Your task to perform on an android device: install app "Calculator" Image 0: 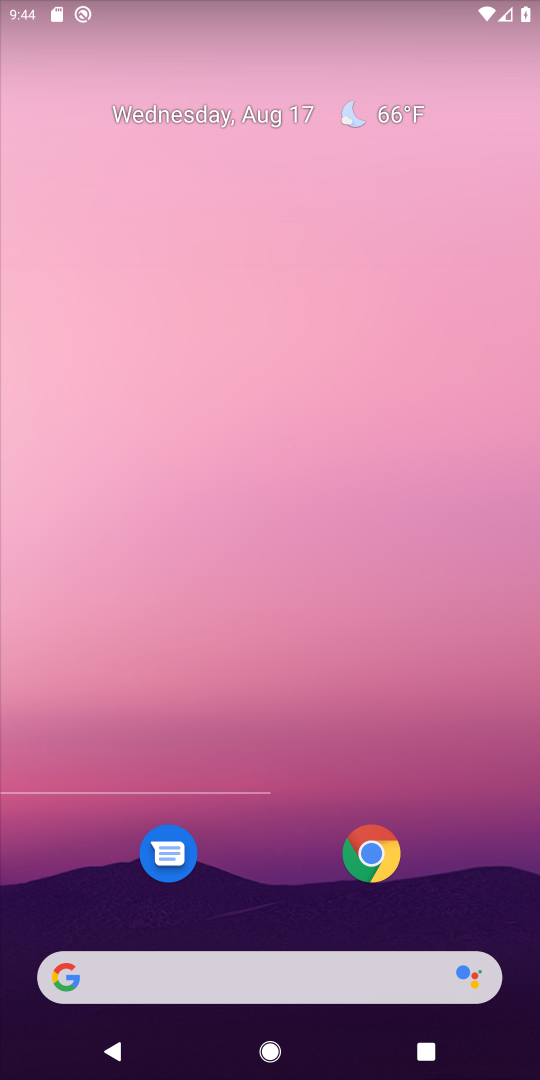
Step 0: press home button
Your task to perform on an android device: install app "Calculator" Image 1: 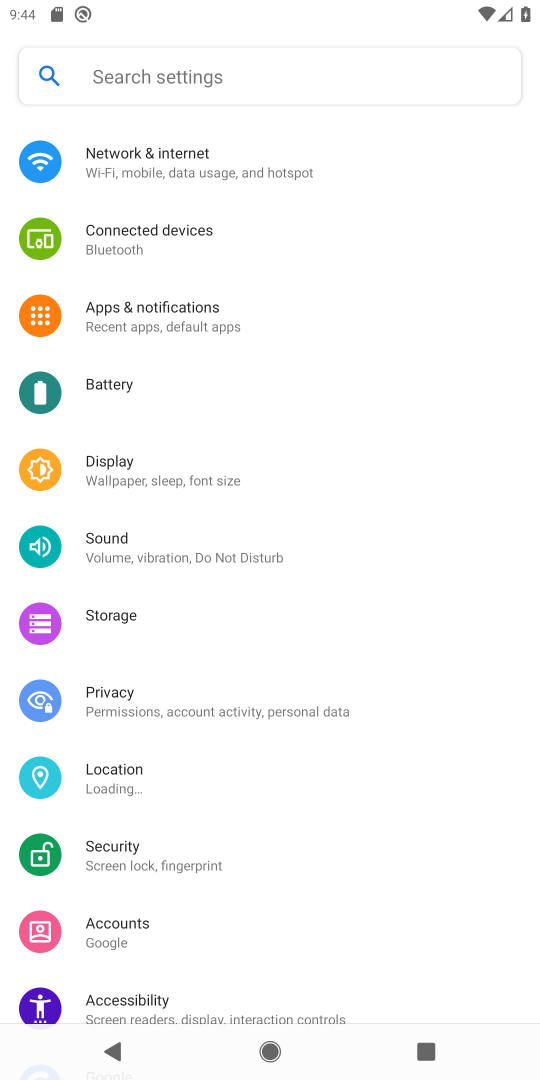
Step 1: press home button
Your task to perform on an android device: install app "Calculator" Image 2: 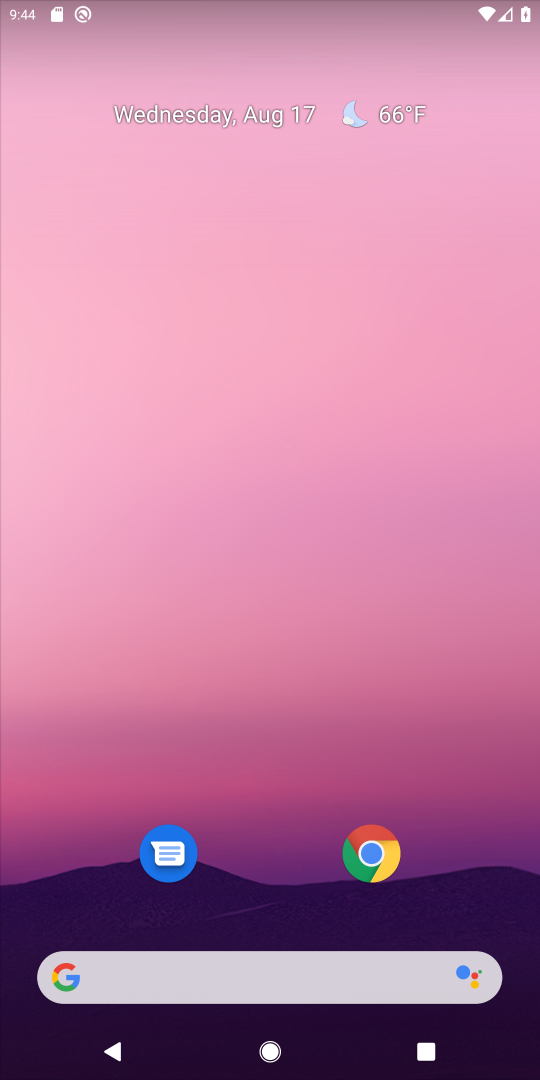
Step 2: drag from (272, 917) to (242, 47)
Your task to perform on an android device: install app "Calculator" Image 3: 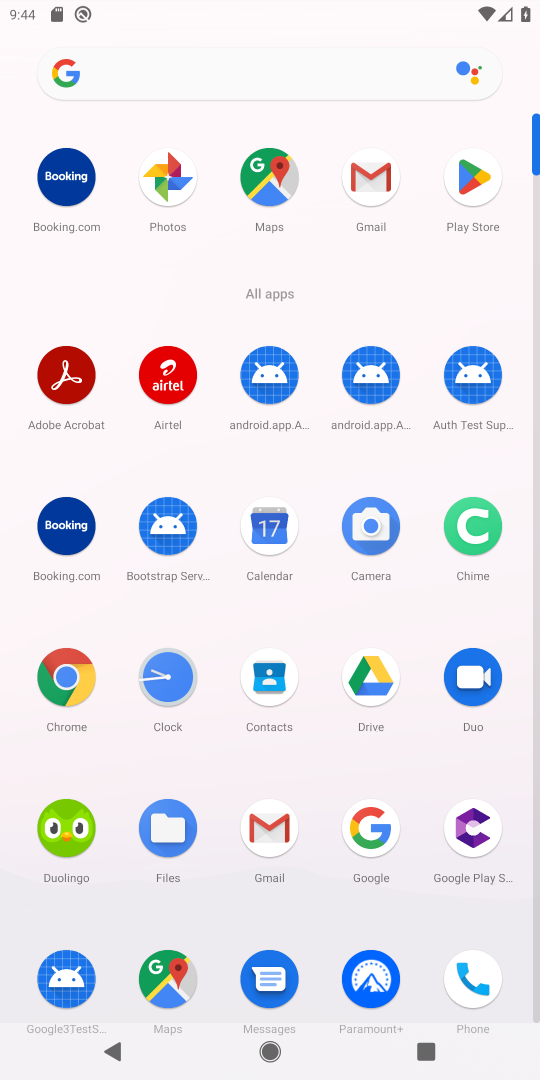
Step 3: click (466, 183)
Your task to perform on an android device: install app "Calculator" Image 4: 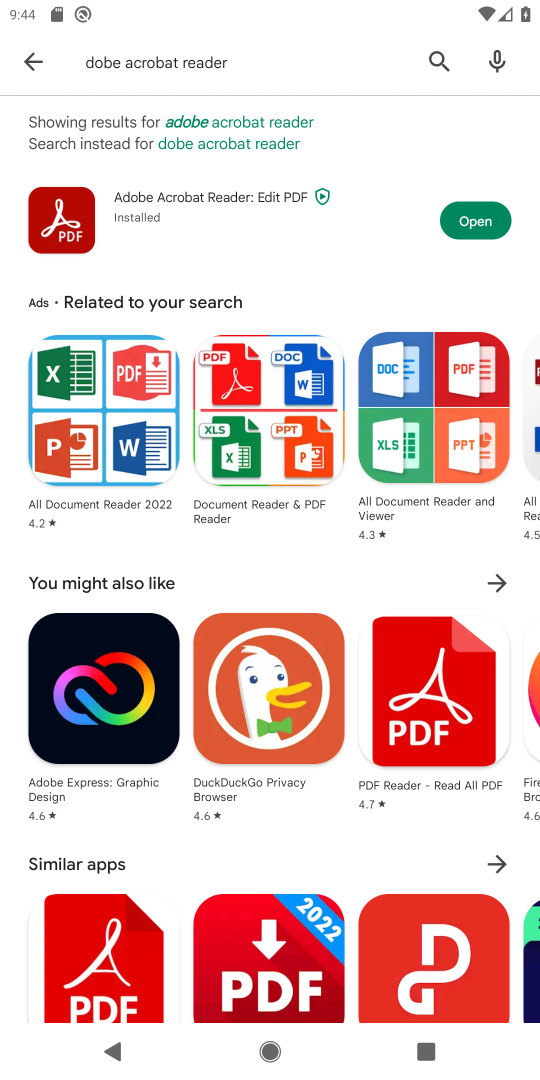
Step 4: click (435, 53)
Your task to perform on an android device: install app "Calculator" Image 5: 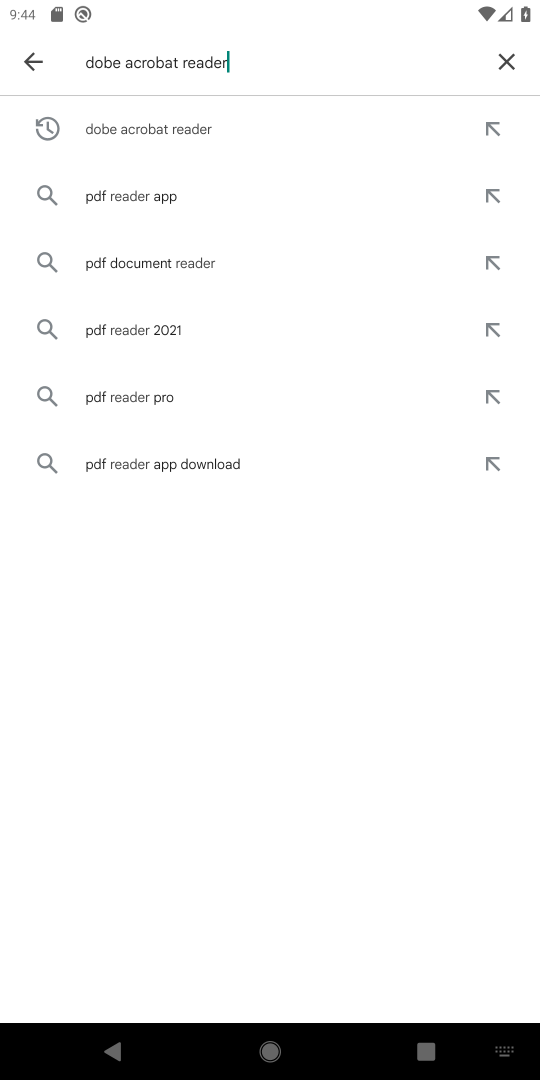
Step 5: click (497, 57)
Your task to perform on an android device: install app "Calculator" Image 6: 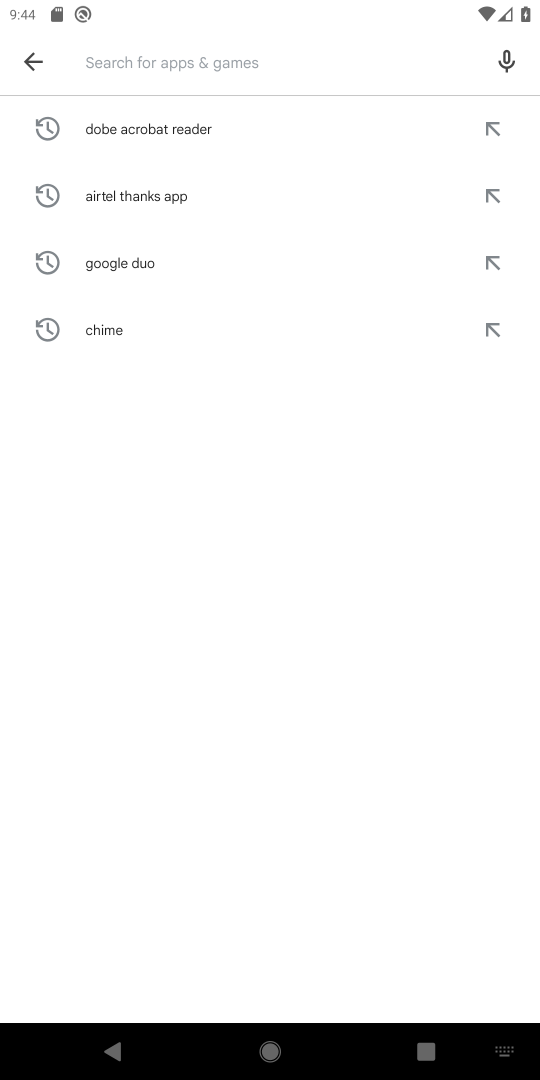
Step 6: type "Calculator"
Your task to perform on an android device: install app "Calculator" Image 7: 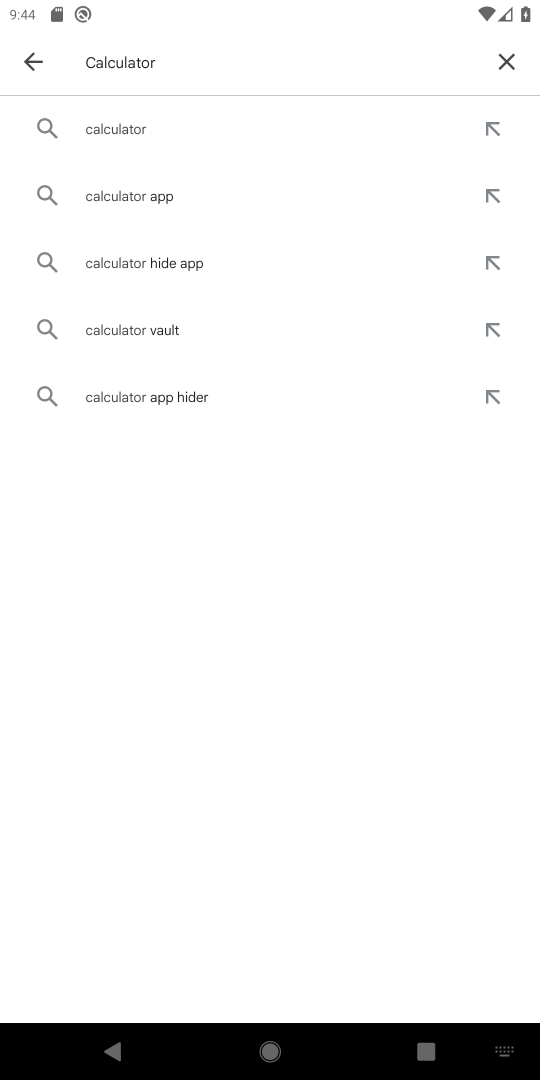
Step 7: click (96, 123)
Your task to perform on an android device: install app "Calculator" Image 8: 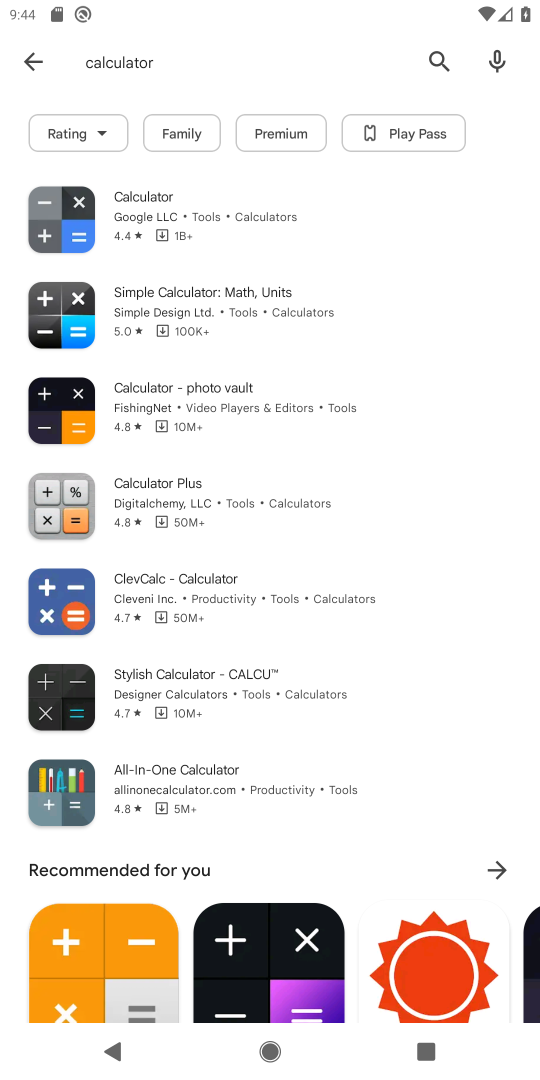
Step 8: click (158, 196)
Your task to perform on an android device: install app "Calculator" Image 9: 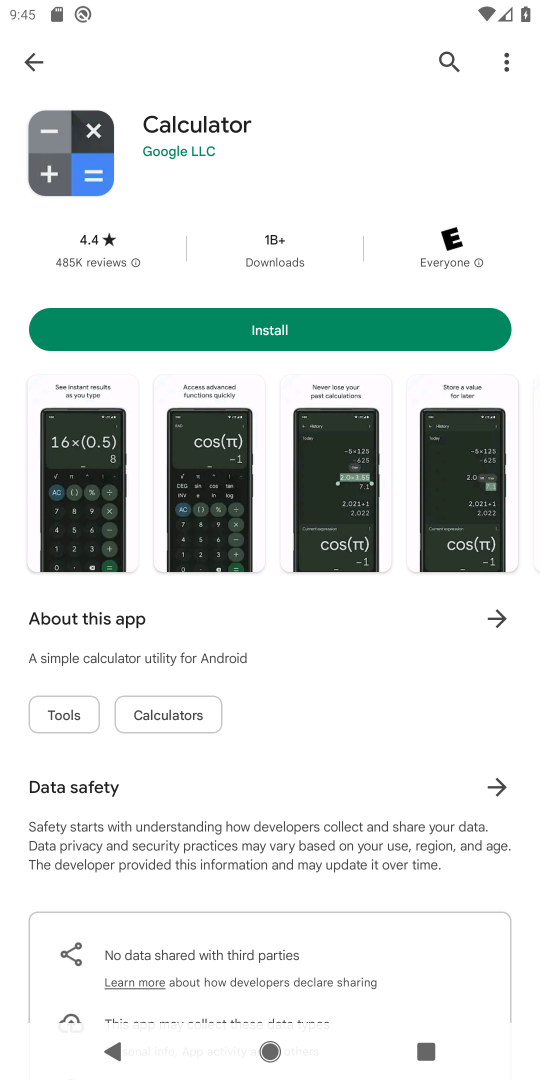
Step 9: click (276, 334)
Your task to perform on an android device: install app "Calculator" Image 10: 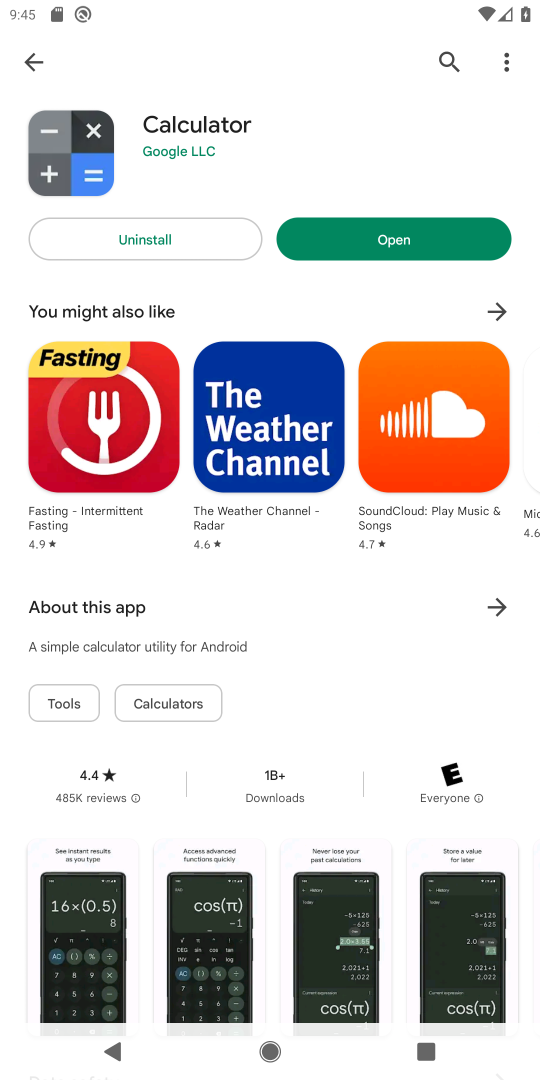
Step 10: task complete